Your task to perform on an android device: move a message to another label in the gmail app Image 0: 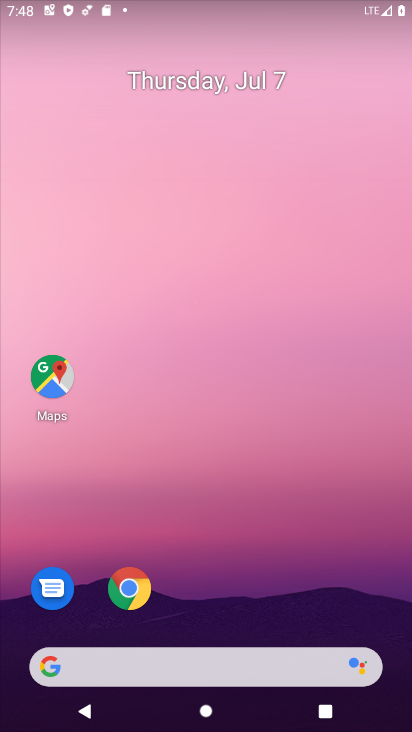
Step 0: drag from (272, 600) to (246, 429)
Your task to perform on an android device: move a message to another label in the gmail app Image 1: 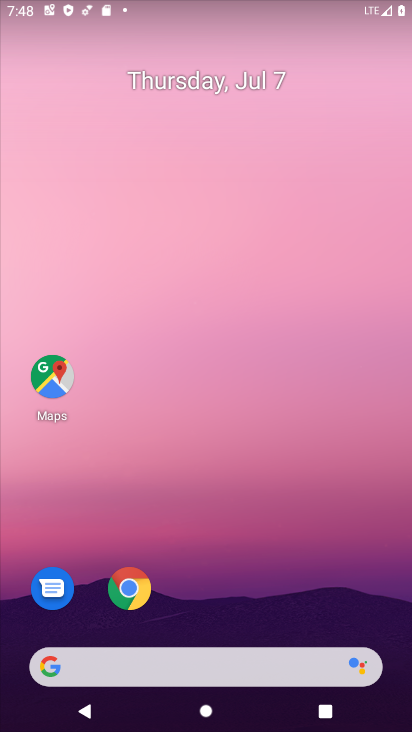
Step 1: drag from (246, 626) to (235, 188)
Your task to perform on an android device: move a message to another label in the gmail app Image 2: 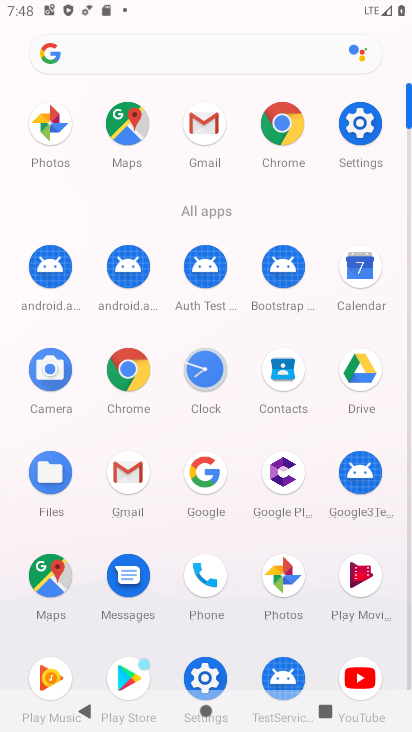
Step 2: click (216, 121)
Your task to perform on an android device: move a message to another label in the gmail app Image 3: 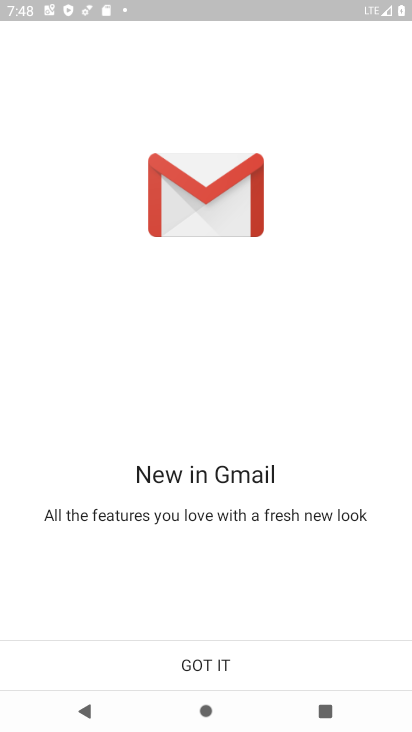
Step 3: click (215, 661)
Your task to perform on an android device: move a message to another label in the gmail app Image 4: 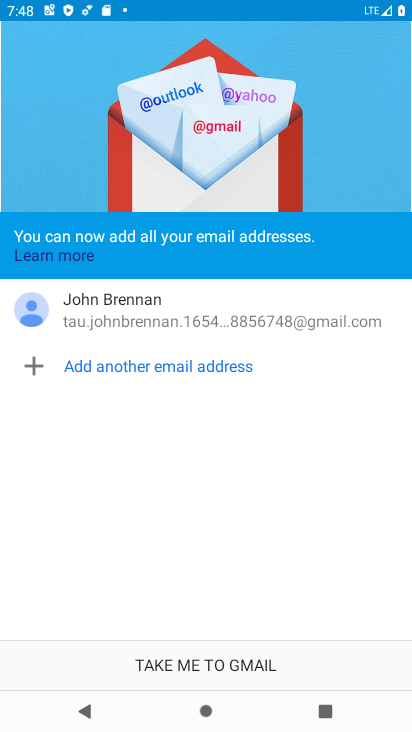
Step 4: click (169, 666)
Your task to perform on an android device: move a message to another label in the gmail app Image 5: 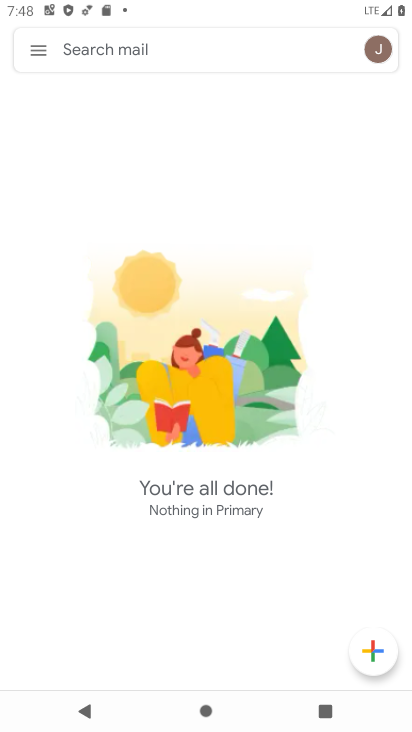
Step 5: click (46, 51)
Your task to perform on an android device: move a message to another label in the gmail app Image 6: 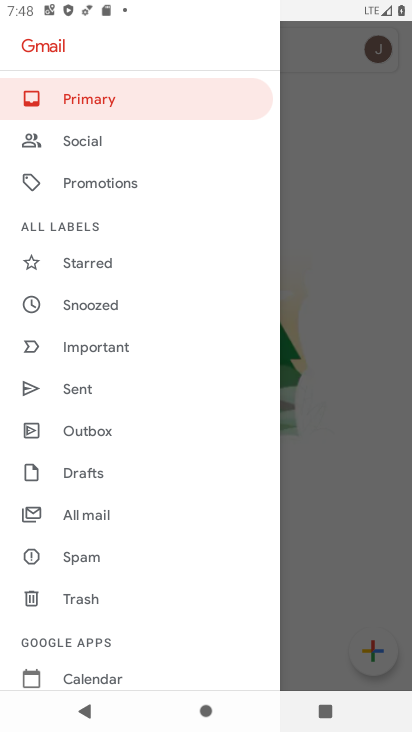
Step 6: click (87, 507)
Your task to perform on an android device: move a message to another label in the gmail app Image 7: 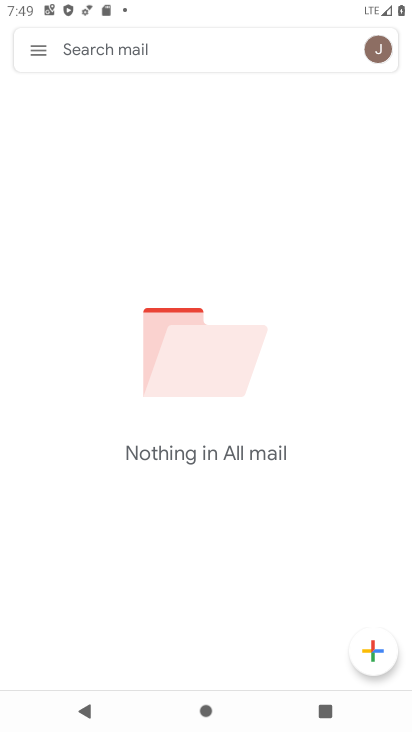
Step 7: task complete